Your task to perform on an android device: Open the web browser Image 0: 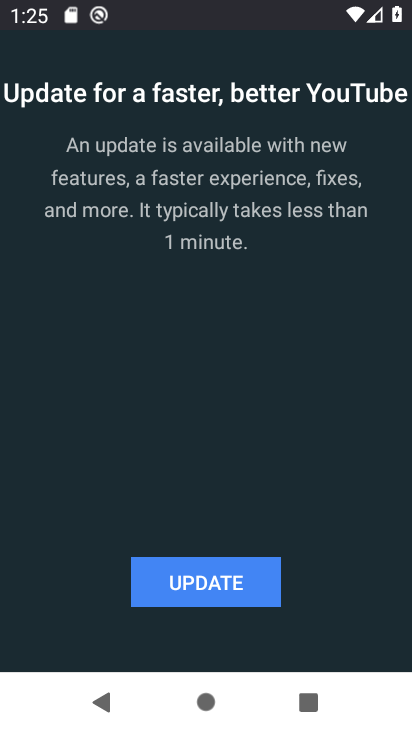
Step 0: press home button
Your task to perform on an android device: Open the web browser Image 1: 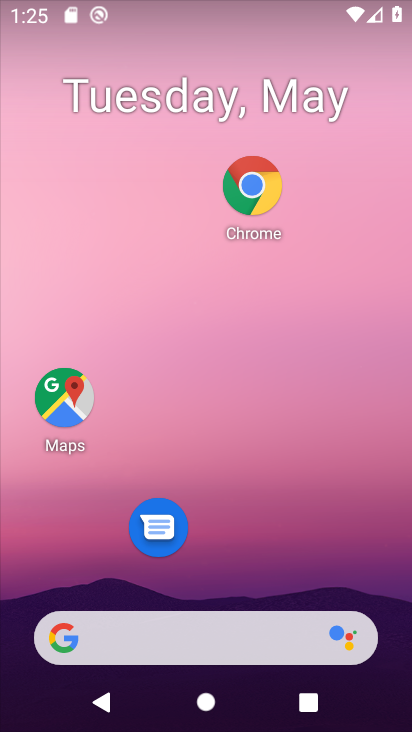
Step 1: click (255, 184)
Your task to perform on an android device: Open the web browser Image 2: 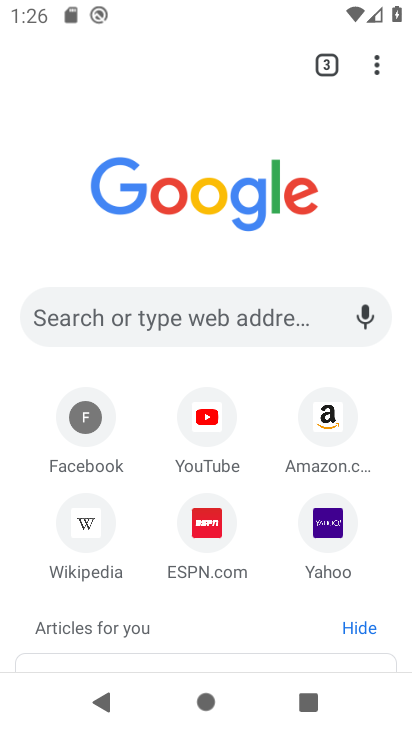
Step 2: task complete